Your task to perform on an android device: turn off priority inbox in the gmail app Image 0: 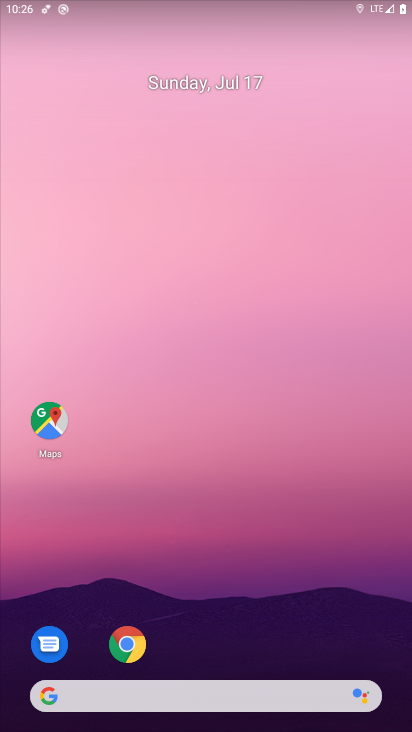
Step 0: drag from (231, 667) to (243, 144)
Your task to perform on an android device: turn off priority inbox in the gmail app Image 1: 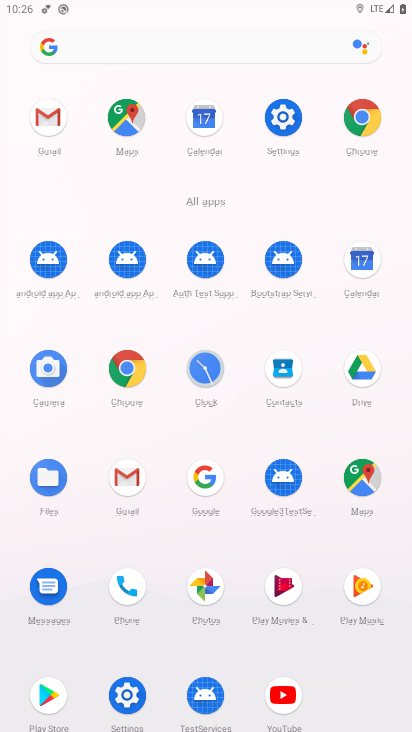
Step 1: click (50, 125)
Your task to perform on an android device: turn off priority inbox in the gmail app Image 2: 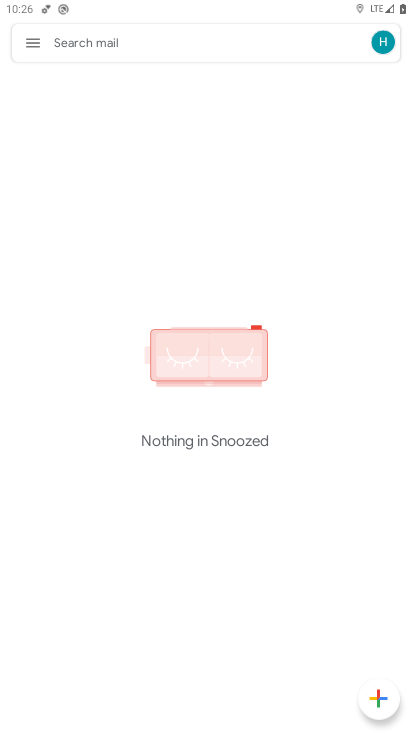
Step 2: click (36, 37)
Your task to perform on an android device: turn off priority inbox in the gmail app Image 3: 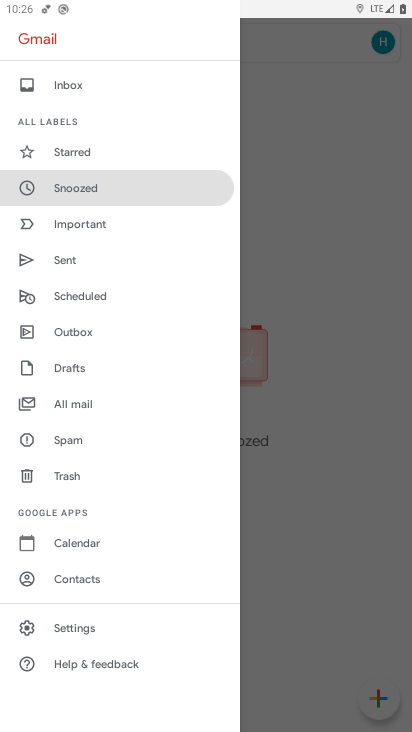
Step 3: click (73, 627)
Your task to perform on an android device: turn off priority inbox in the gmail app Image 4: 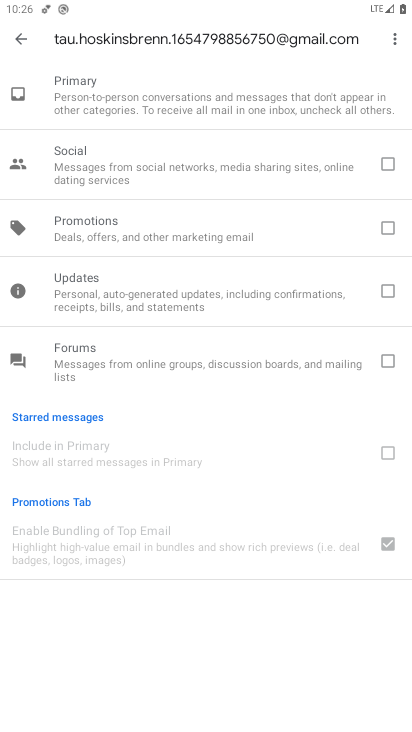
Step 4: drag from (303, 414) to (218, 725)
Your task to perform on an android device: turn off priority inbox in the gmail app Image 5: 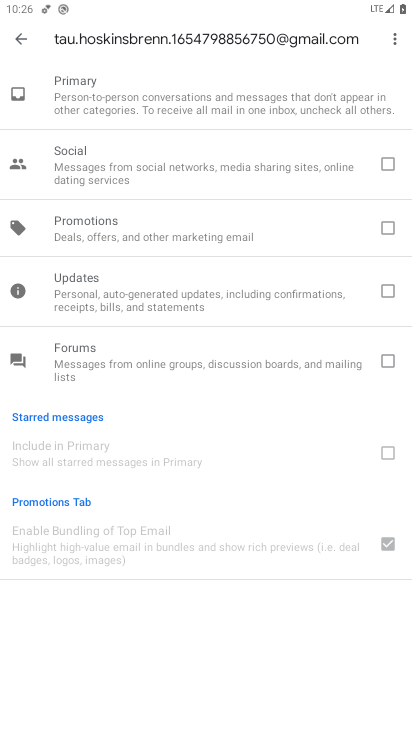
Step 5: click (22, 32)
Your task to perform on an android device: turn off priority inbox in the gmail app Image 6: 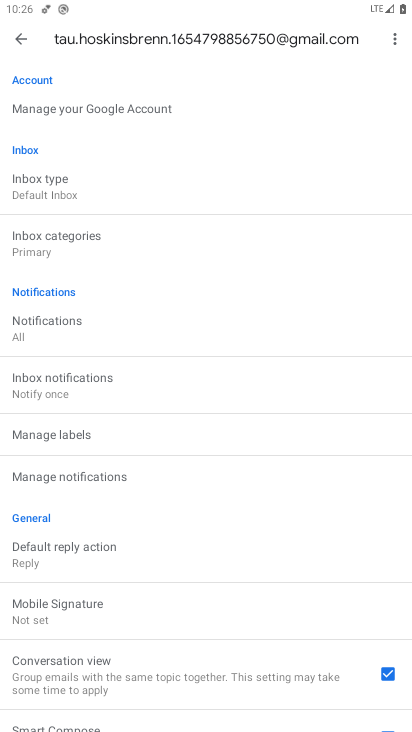
Step 6: click (48, 190)
Your task to perform on an android device: turn off priority inbox in the gmail app Image 7: 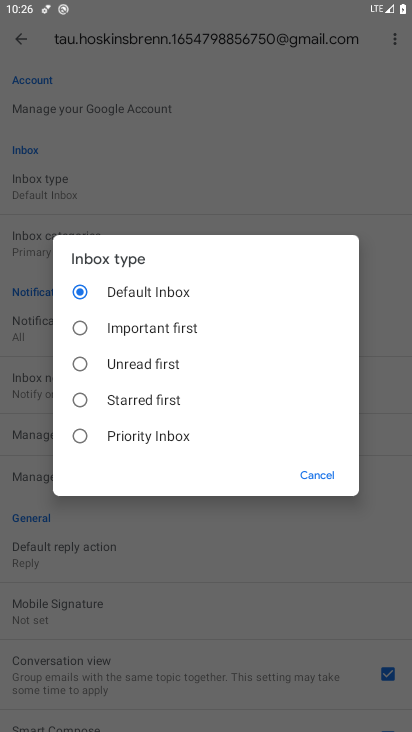
Step 7: task complete